Your task to perform on an android device: add a contact in the contacts app Image 0: 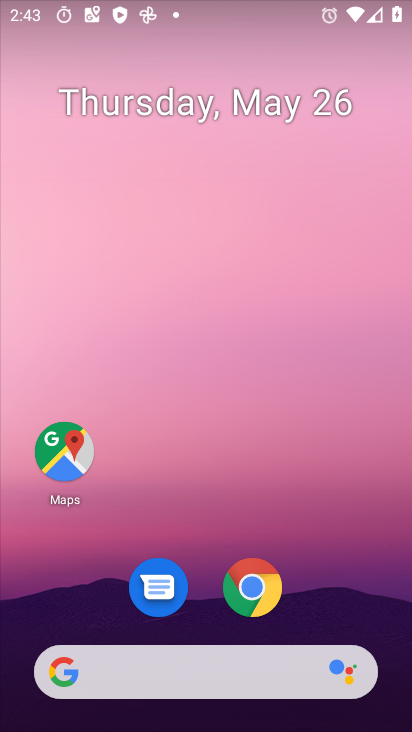
Step 0: drag from (359, 604) to (377, 196)
Your task to perform on an android device: add a contact in the contacts app Image 1: 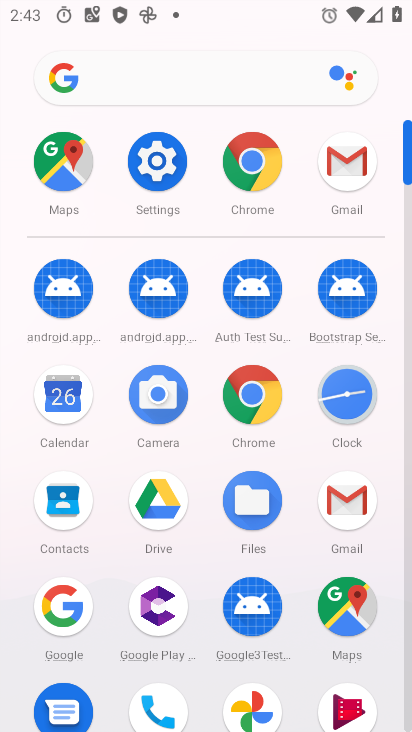
Step 1: click (69, 513)
Your task to perform on an android device: add a contact in the contacts app Image 2: 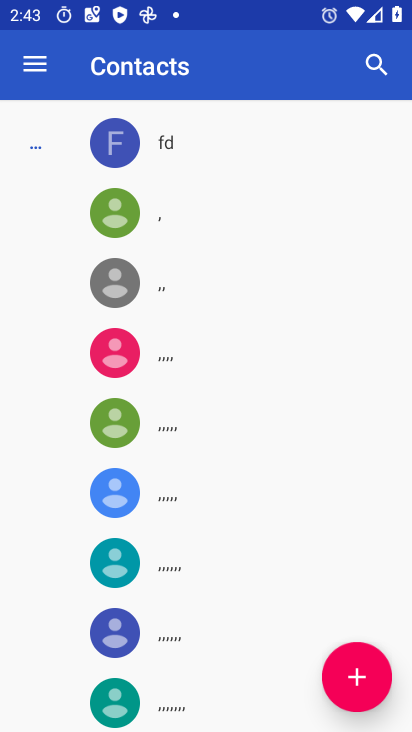
Step 2: click (362, 680)
Your task to perform on an android device: add a contact in the contacts app Image 3: 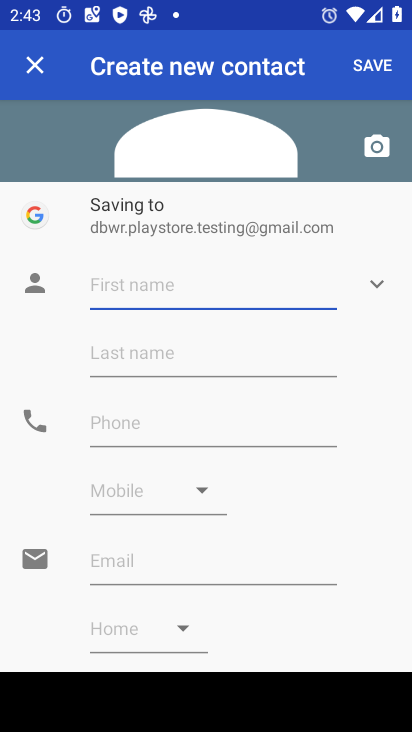
Step 3: click (242, 291)
Your task to perform on an android device: add a contact in the contacts app Image 4: 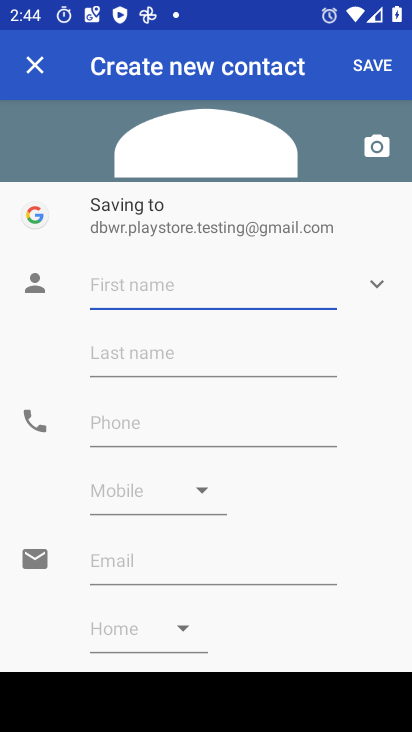
Step 4: type "olololo"
Your task to perform on an android device: add a contact in the contacts app Image 5: 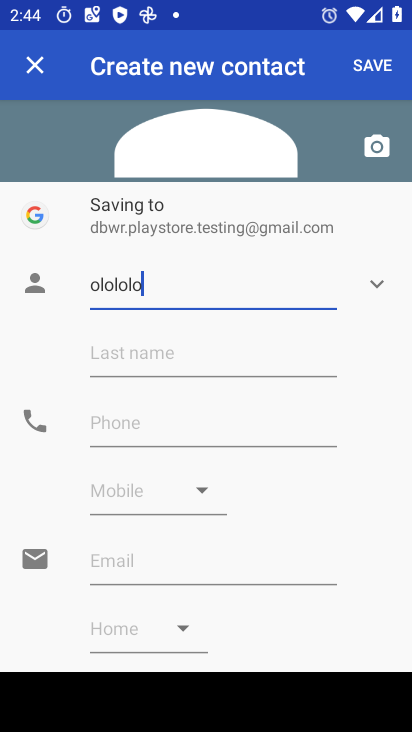
Step 5: click (280, 424)
Your task to perform on an android device: add a contact in the contacts app Image 6: 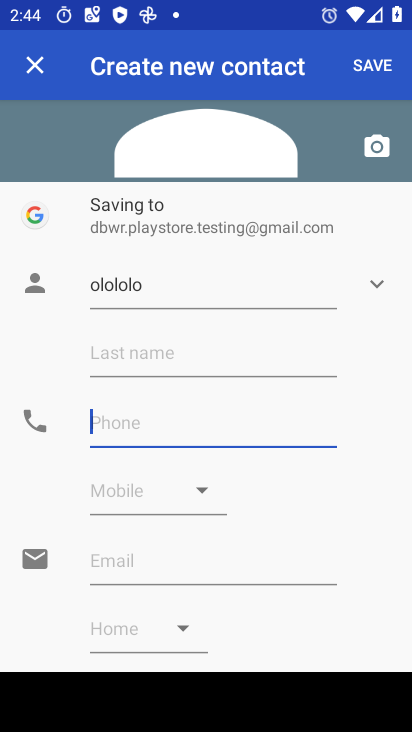
Step 6: type "1234567890"
Your task to perform on an android device: add a contact in the contacts app Image 7: 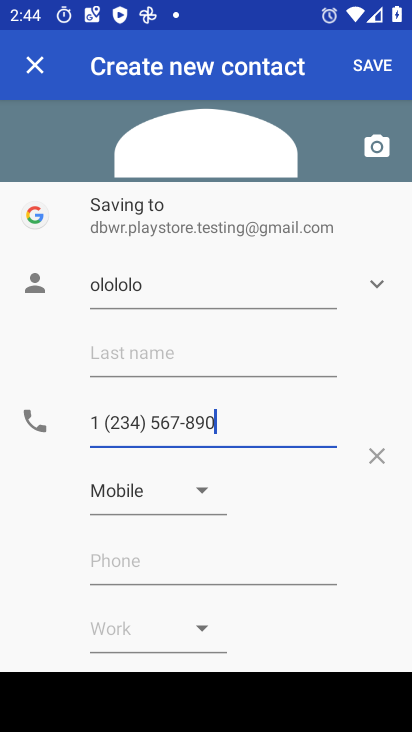
Step 7: click (380, 62)
Your task to perform on an android device: add a contact in the contacts app Image 8: 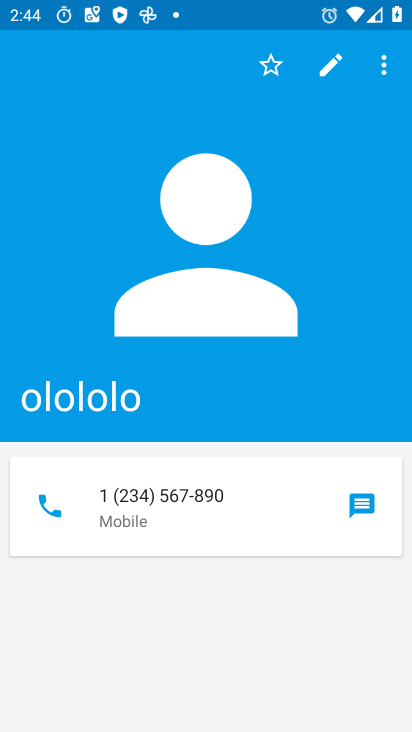
Step 8: task complete